Your task to perform on an android device: Set the phone to "Do not disturb". Image 0: 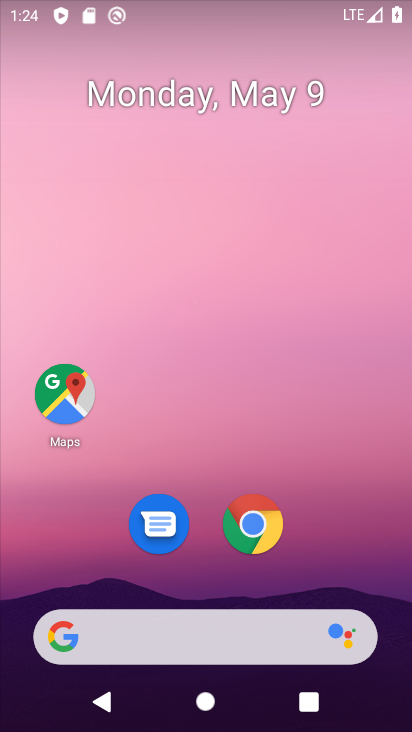
Step 0: drag from (366, 531) to (324, 54)
Your task to perform on an android device: Set the phone to "Do not disturb". Image 1: 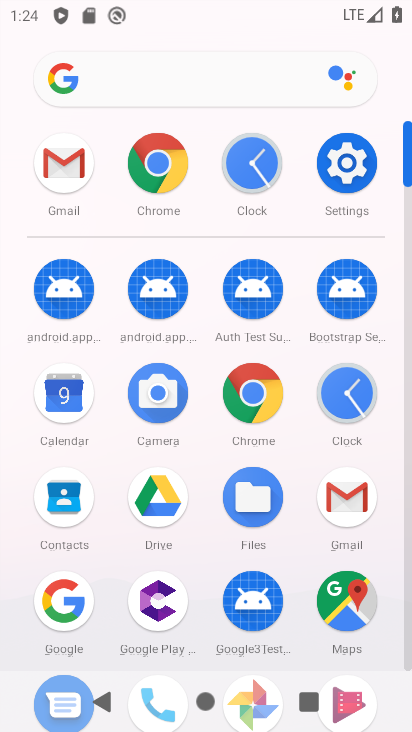
Step 1: click (358, 162)
Your task to perform on an android device: Set the phone to "Do not disturb". Image 2: 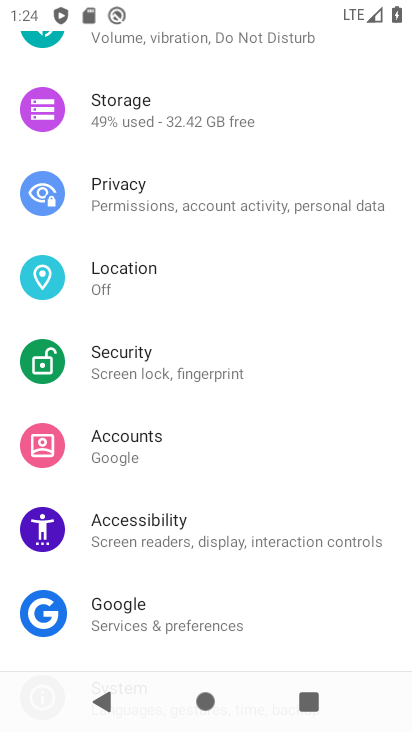
Step 2: drag from (262, 246) to (310, 615)
Your task to perform on an android device: Set the phone to "Do not disturb". Image 3: 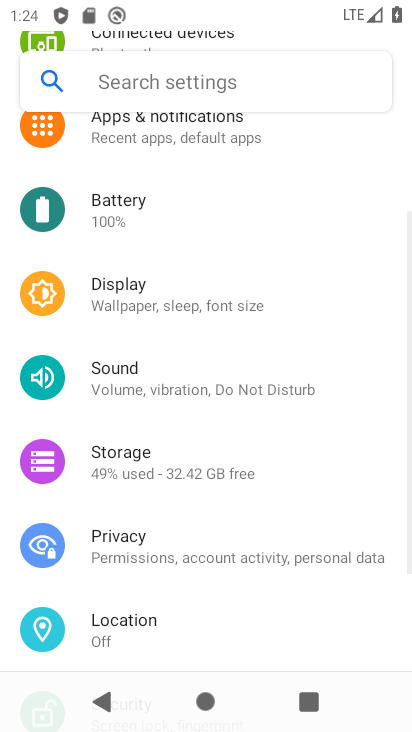
Step 3: click (242, 379)
Your task to perform on an android device: Set the phone to "Do not disturb". Image 4: 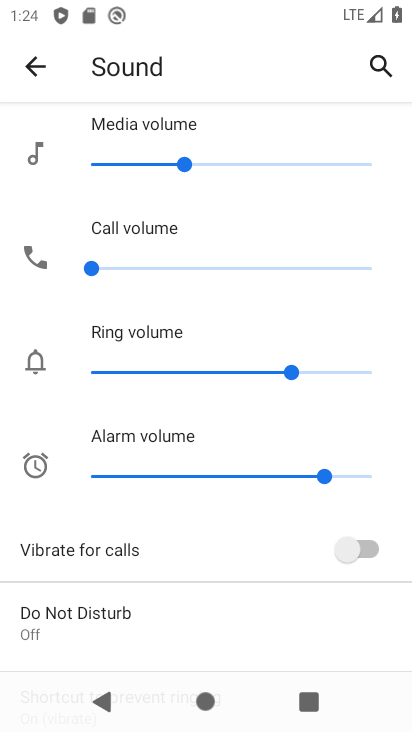
Step 4: click (162, 578)
Your task to perform on an android device: Set the phone to "Do not disturb". Image 5: 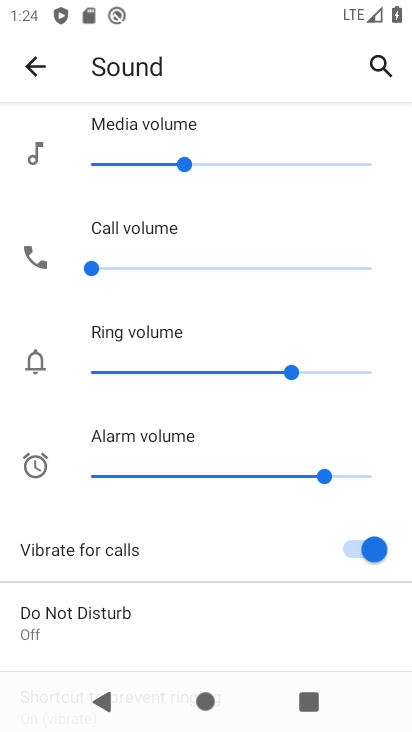
Step 5: click (345, 549)
Your task to perform on an android device: Set the phone to "Do not disturb". Image 6: 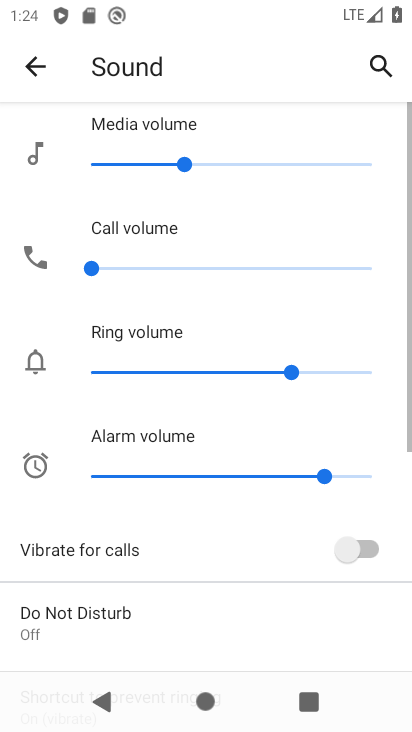
Step 6: click (200, 626)
Your task to perform on an android device: Set the phone to "Do not disturb". Image 7: 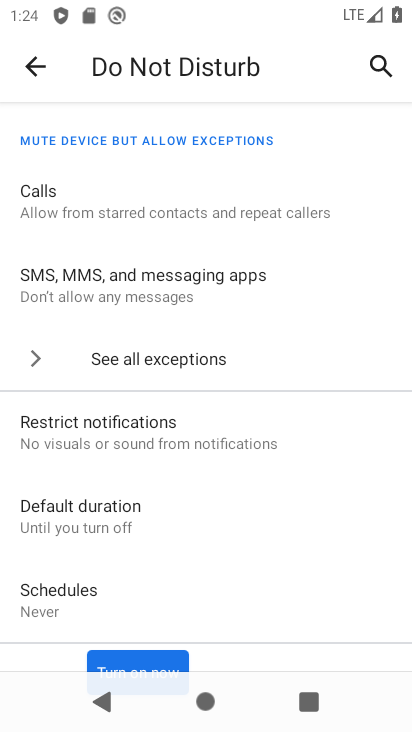
Step 7: drag from (244, 579) to (247, 412)
Your task to perform on an android device: Set the phone to "Do not disturb". Image 8: 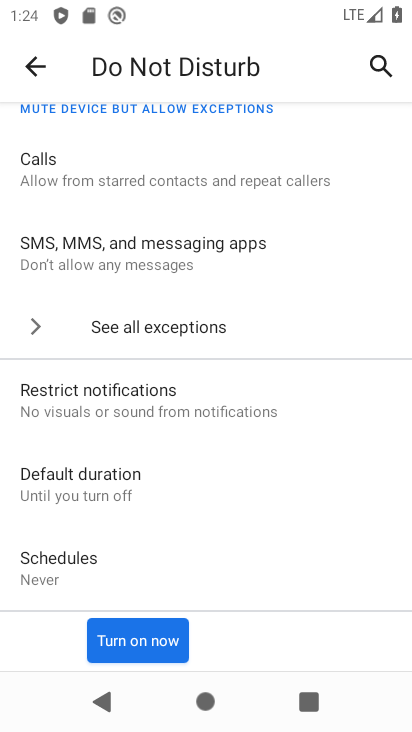
Step 8: click (146, 646)
Your task to perform on an android device: Set the phone to "Do not disturb". Image 9: 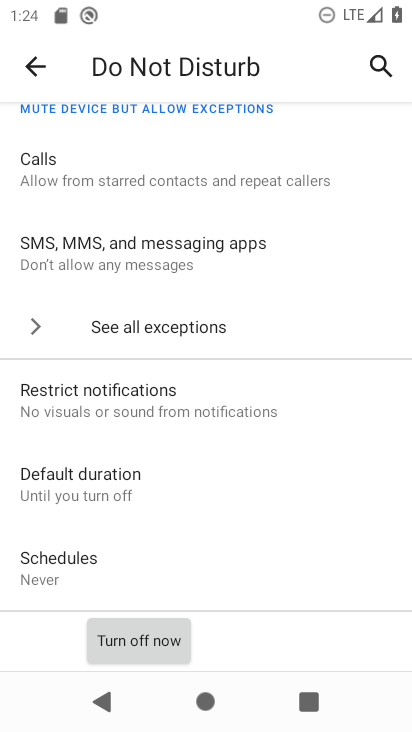
Step 9: task complete